Your task to perform on an android device: turn on priority inbox in the gmail app Image 0: 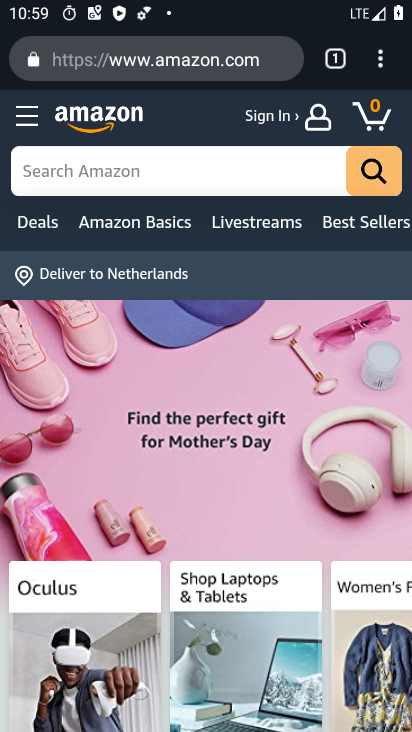
Step 0: press home button
Your task to perform on an android device: turn on priority inbox in the gmail app Image 1: 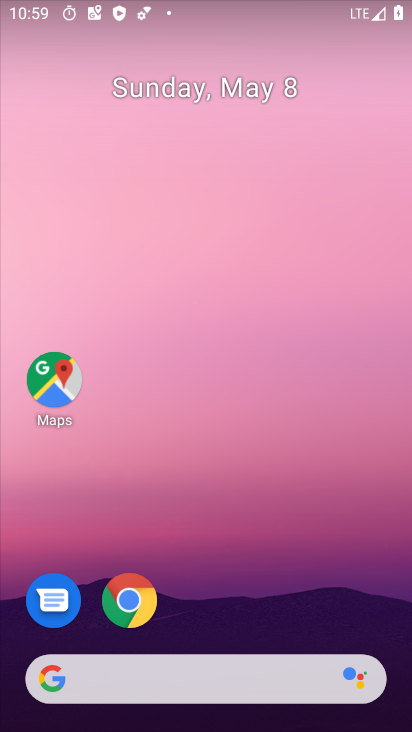
Step 1: drag from (19, 576) to (179, 166)
Your task to perform on an android device: turn on priority inbox in the gmail app Image 2: 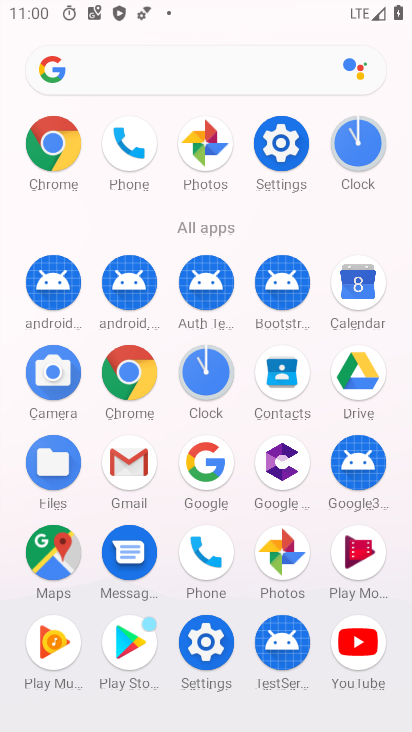
Step 2: click (139, 464)
Your task to perform on an android device: turn on priority inbox in the gmail app Image 3: 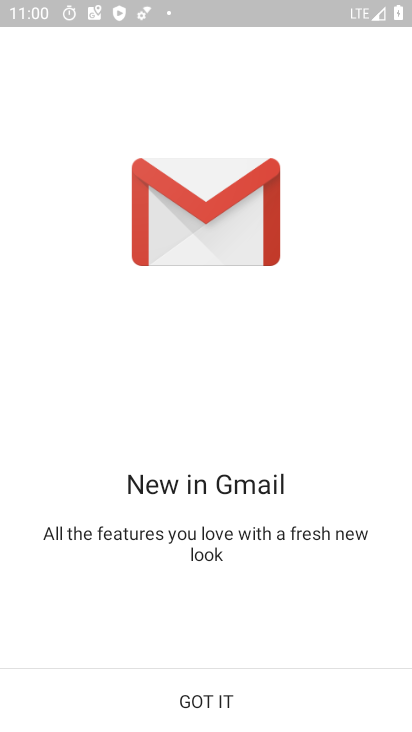
Step 3: click (180, 685)
Your task to perform on an android device: turn on priority inbox in the gmail app Image 4: 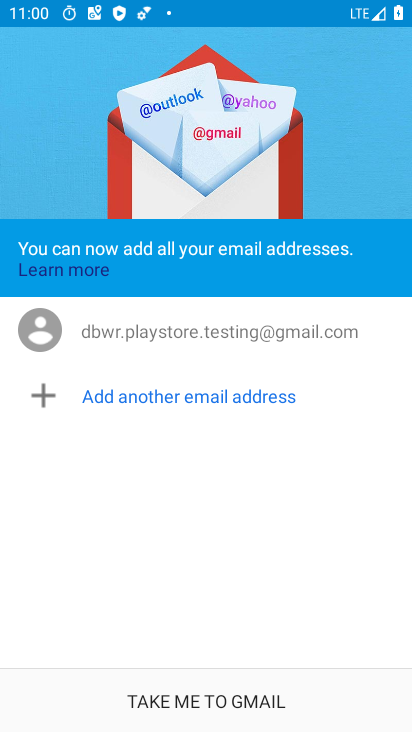
Step 4: click (173, 691)
Your task to perform on an android device: turn on priority inbox in the gmail app Image 5: 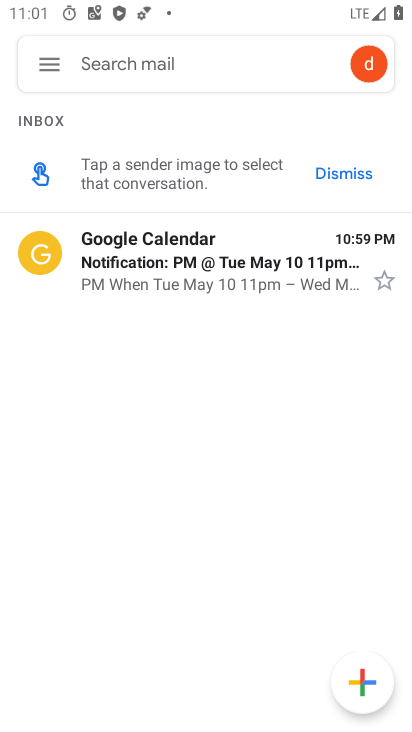
Step 5: click (50, 61)
Your task to perform on an android device: turn on priority inbox in the gmail app Image 6: 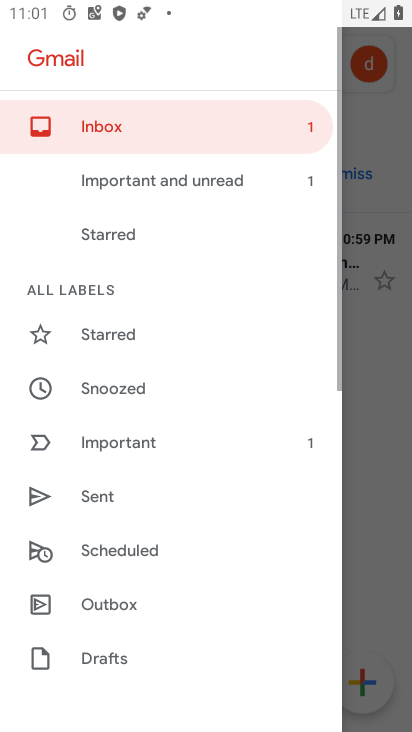
Step 6: drag from (108, 679) to (220, 138)
Your task to perform on an android device: turn on priority inbox in the gmail app Image 7: 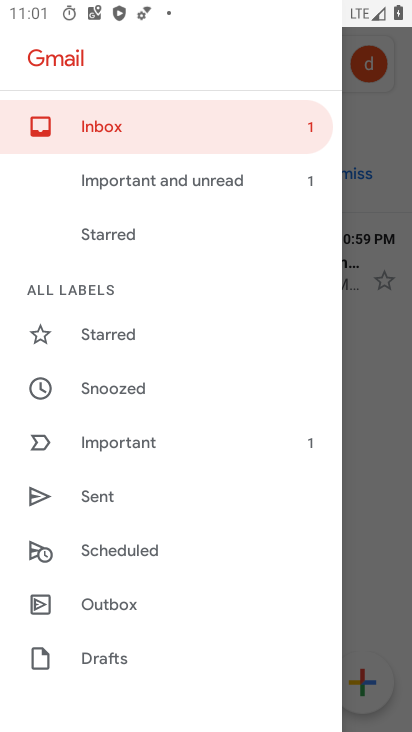
Step 7: drag from (108, 605) to (211, 182)
Your task to perform on an android device: turn on priority inbox in the gmail app Image 8: 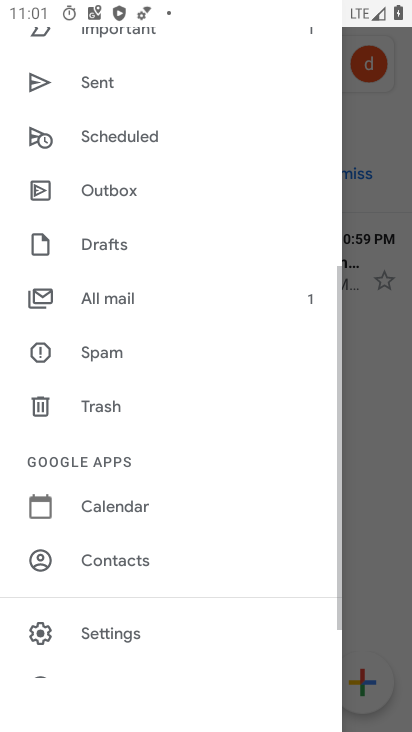
Step 8: click (76, 636)
Your task to perform on an android device: turn on priority inbox in the gmail app Image 9: 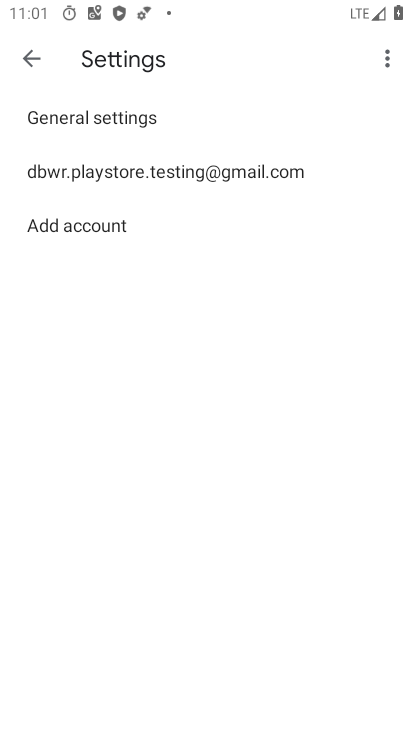
Step 9: click (119, 164)
Your task to perform on an android device: turn on priority inbox in the gmail app Image 10: 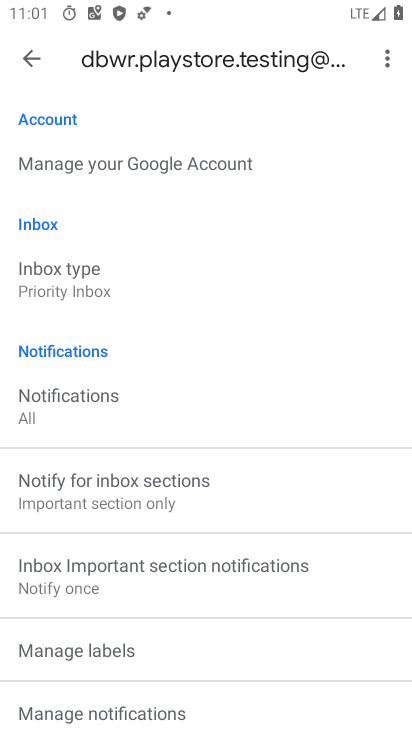
Step 10: click (181, 285)
Your task to perform on an android device: turn on priority inbox in the gmail app Image 11: 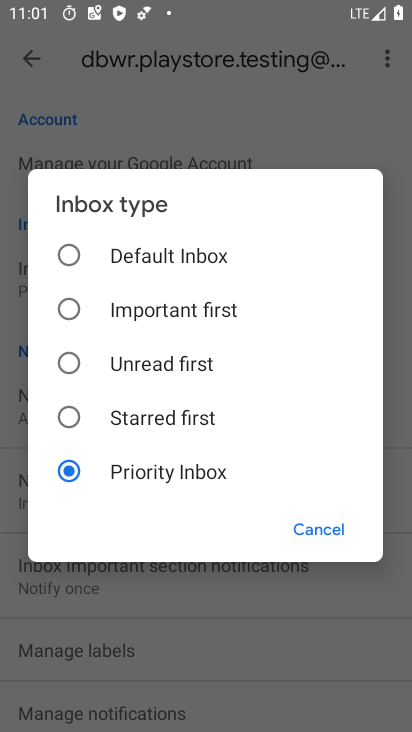
Step 11: click (111, 466)
Your task to perform on an android device: turn on priority inbox in the gmail app Image 12: 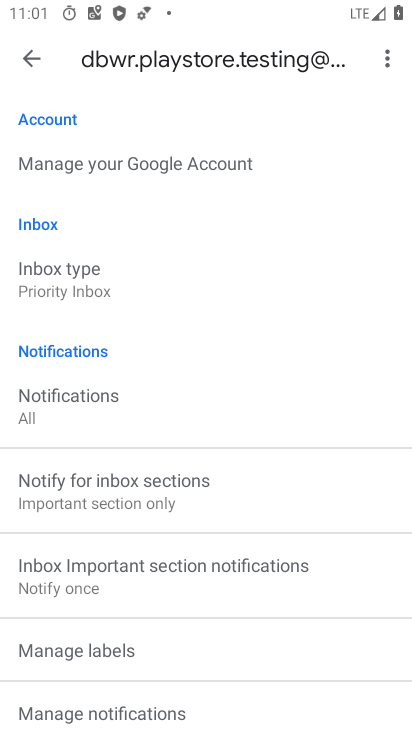
Step 12: task complete